Your task to perform on an android device: Go to sound settings Image 0: 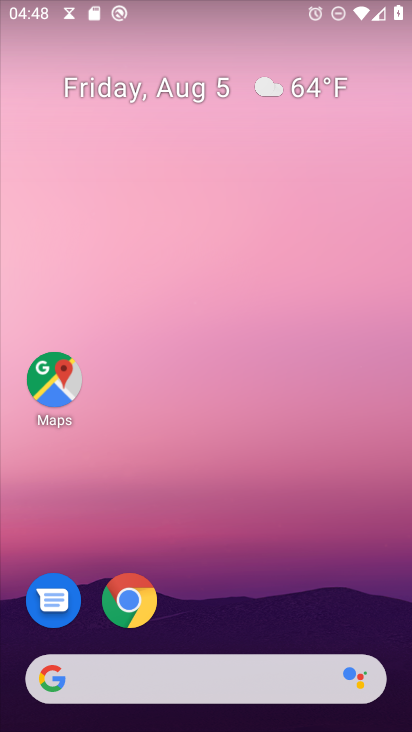
Step 0: drag from (187, 675) to (160, 19)
Your task to perform on an android device: Go to sound settings Image 1: 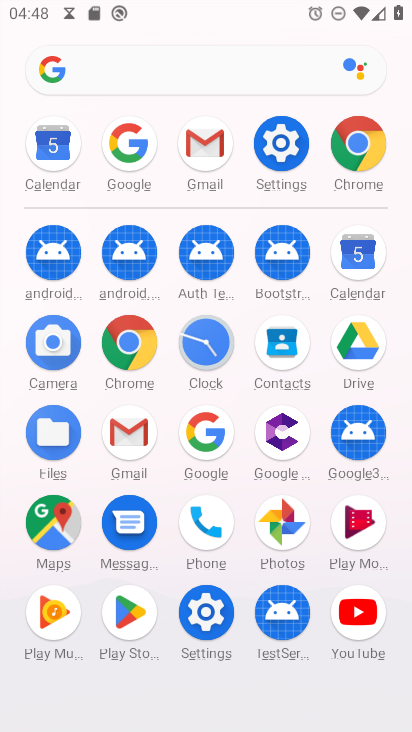
Step 1: click (282, 141)
Your task to perform on an android device: Go to sound settings Image 2: 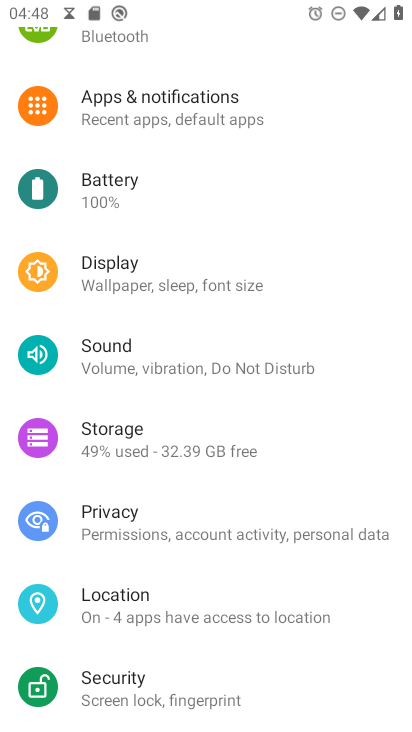
Step 2: click (165, 364)
Your task to perform on an android device: Go to sound settings Image 3: 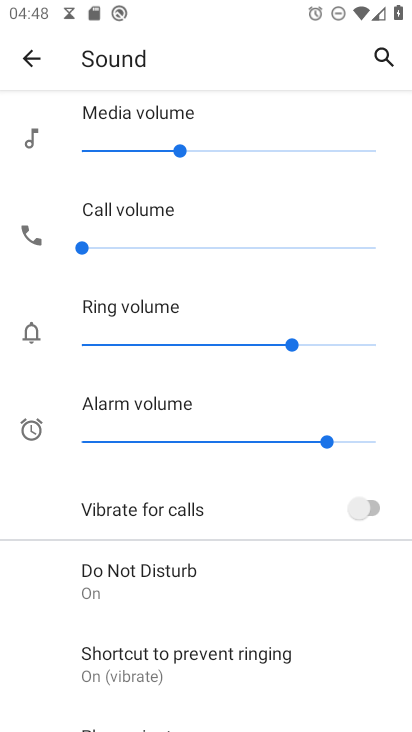
Step 3: task complete